Your task to perform on an android device: find snoozed emails in the gmail app Image 0: 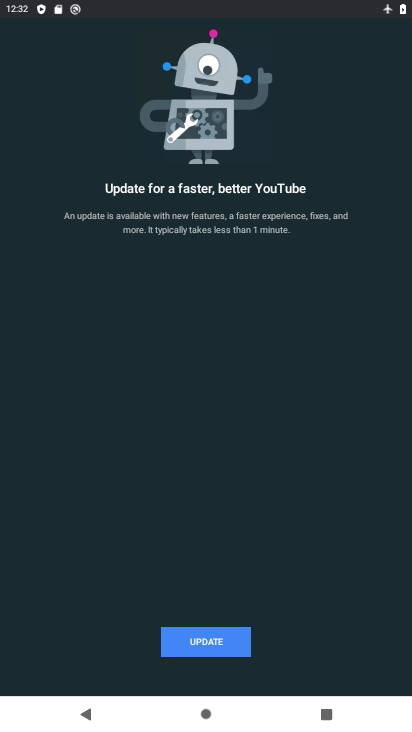
Step 0: press home button
Your task to perform on an android device: find snoozed emails in the gmail app Image 1: 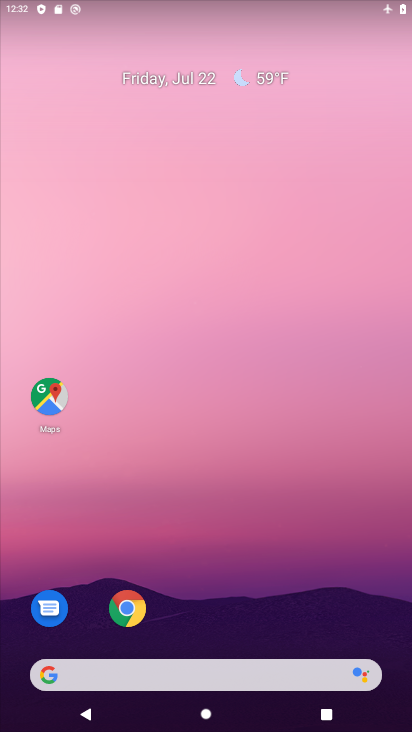
Step 1: drag from (238, 619) to (174, 169)
Your task to perform on an android device: find snoozed emails in the gmail app Image 2: 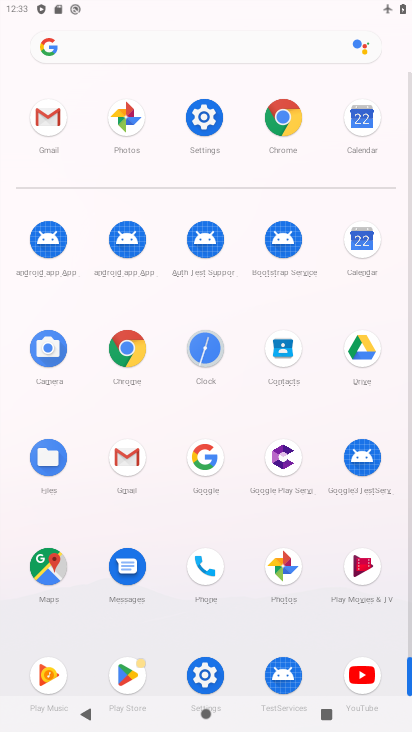
Step 2: click (132, 471)
Your task to perform on an android device: find snoozed emails in the gmail app Image 3: 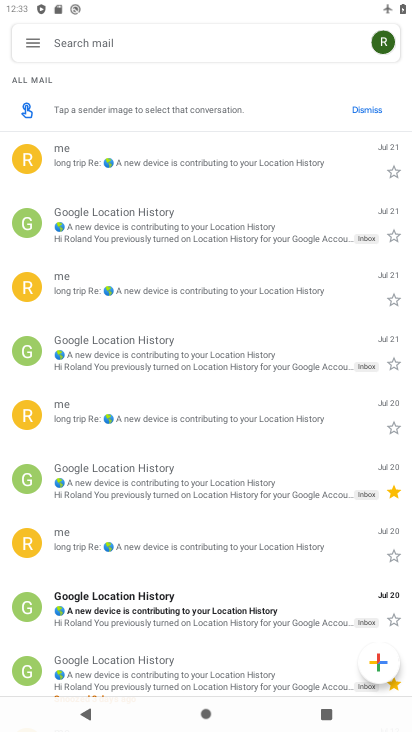
Step 3: click (30, 45)
Your task to perform on an android device: find snoozed emails in the gmail app Image 4: 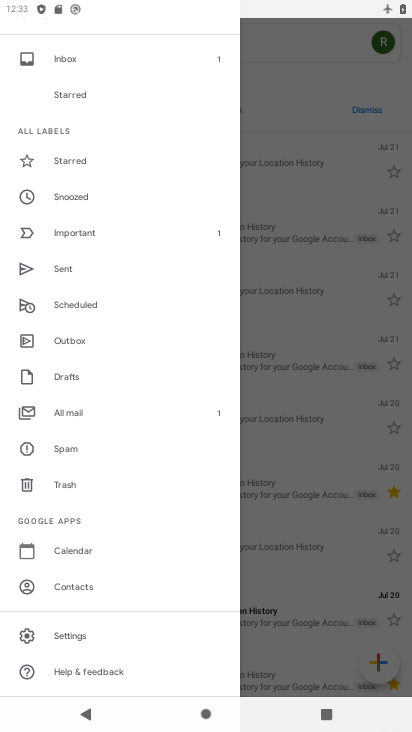
Step 4: click (75, 196)
Your task to perform on an android device: find snoozed emails in the gmail app Image 5: 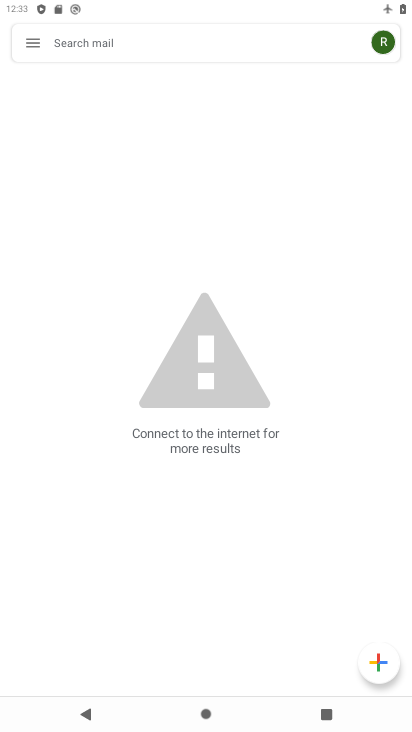
Step 5: task complete